Your task to perform on an android device: Go to eBay Image 0: 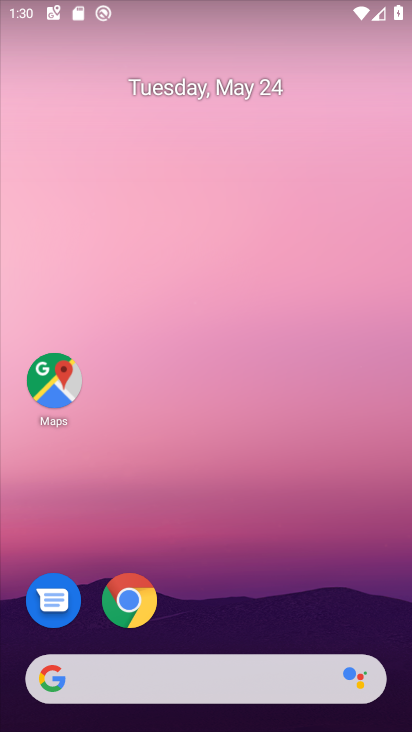
Step 0: click (199, 641)
Your task to perform on an android device: Go to eBay Image 1: 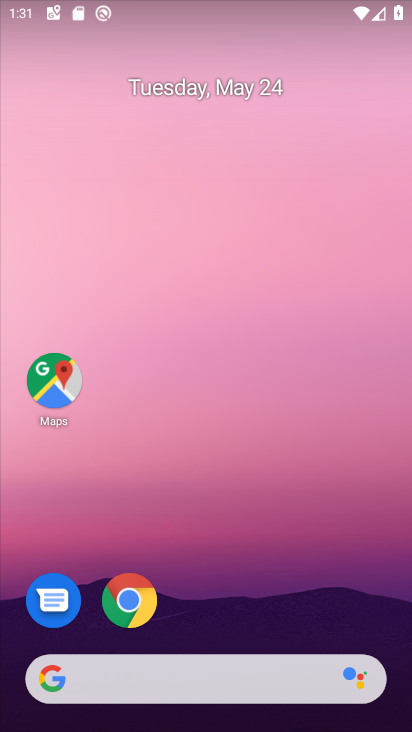
Step 1: click (116, 600)
Your task to perform on an android device: Go to eBay Image 2: 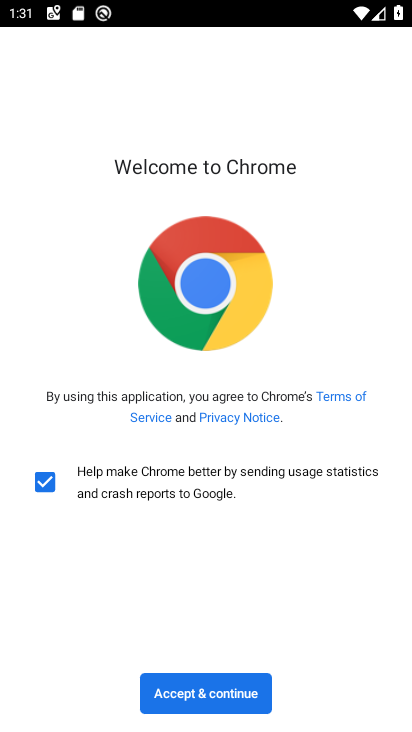
Step 2: click (212, 697)
Your task to perform on an android device: Go to eBay Image 3: 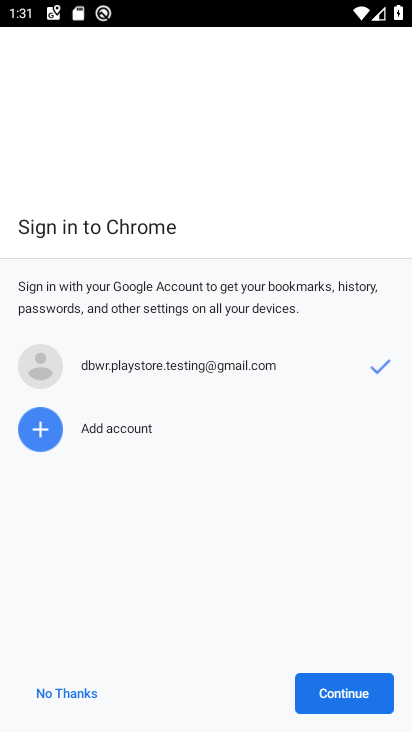
Step 3: click (359, 690)
Your task to perform on an android device: Go to eBay Image 4: 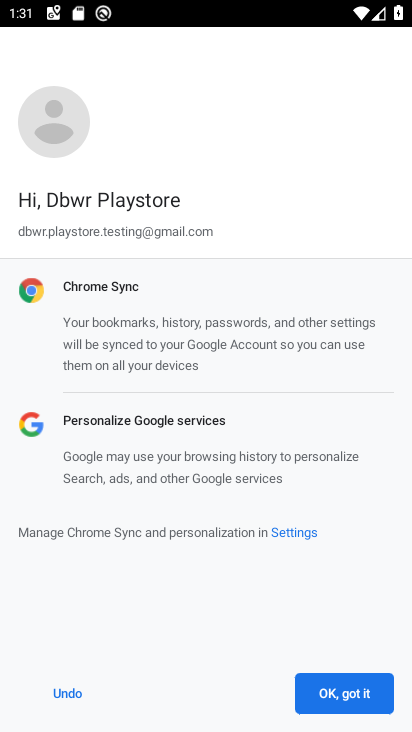
Step 4: click (367, 698)
Your task to perform on an android device: Go to eBay Image 5: 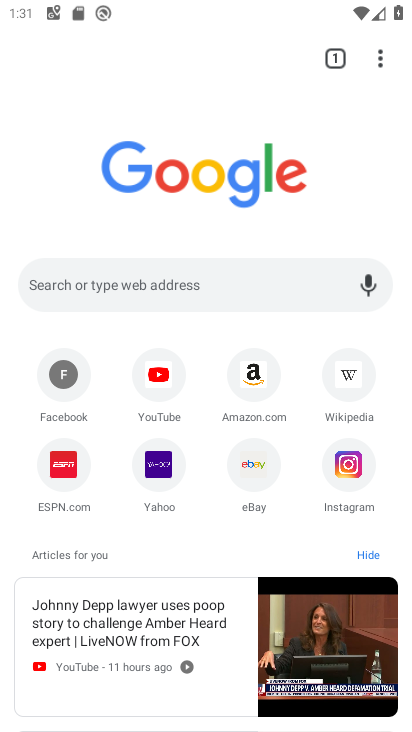
Step 5: click (254, 463)
Your task to perform on an android device: Go to eBay Image 6: 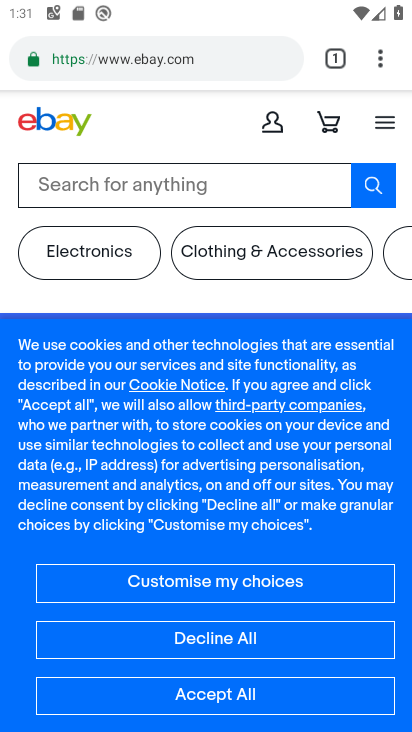
Step 6: task complete